Your task to perform on an android device: Search for Mexican restaurants on Maps Image 0: 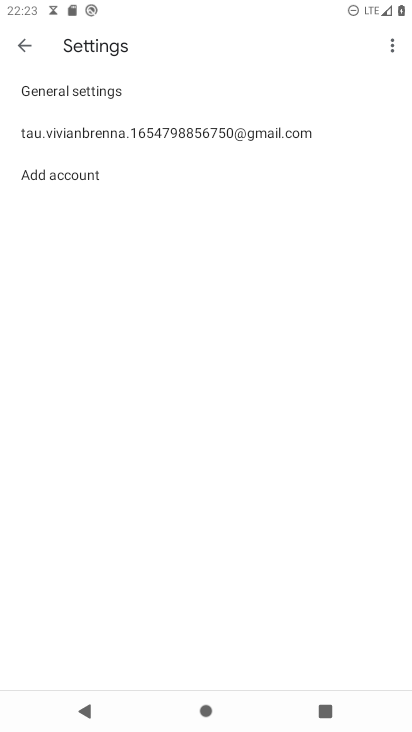
Step 0: press home button
Your task to perform on an android device: Search for Mexican restaurants on Maps Image 1: 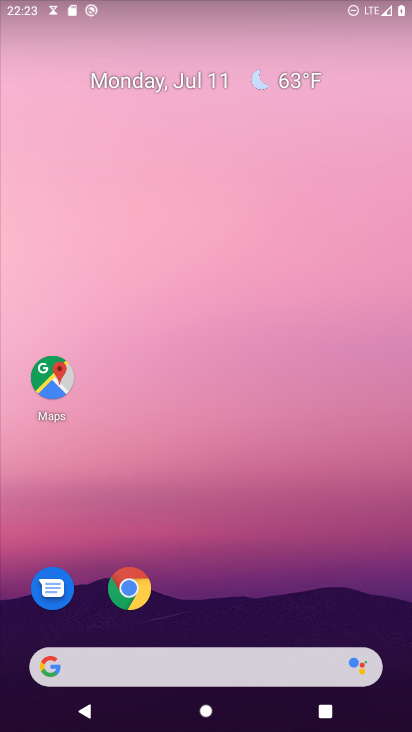
Step 1: click (69, 367)
Your task to perform on an android device: Search for Mexican restaurants on Maps Image 2: 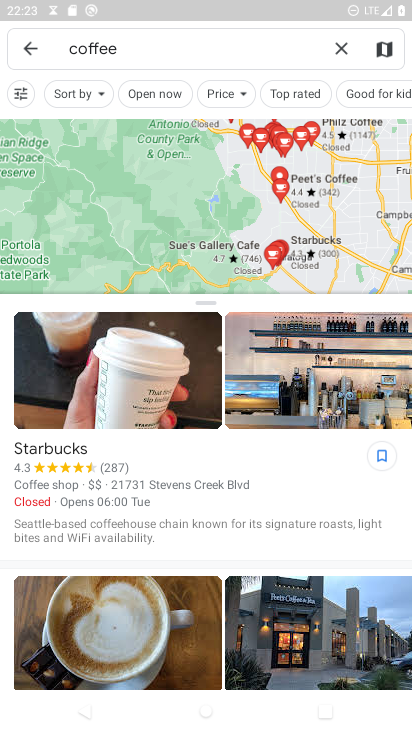
Step 2: click (338, 48)
Your task to perform on an android device: Search for Mexican restaurants on Maps Image 3: 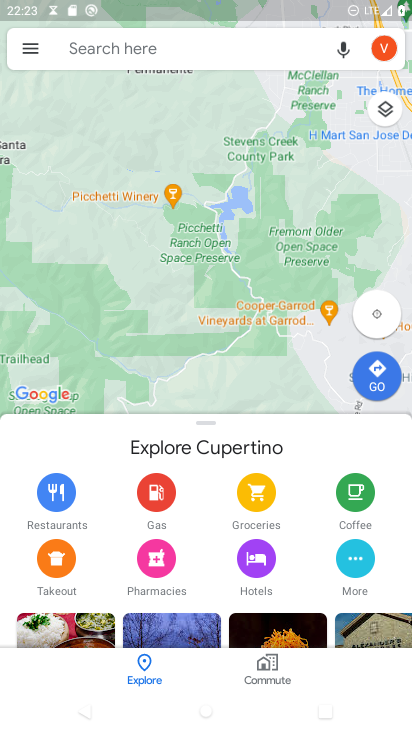
Step 3: type "Mexican restaurants"
Your task to perform on an android device: Search for Mexican restaurants on Maps Image 4: 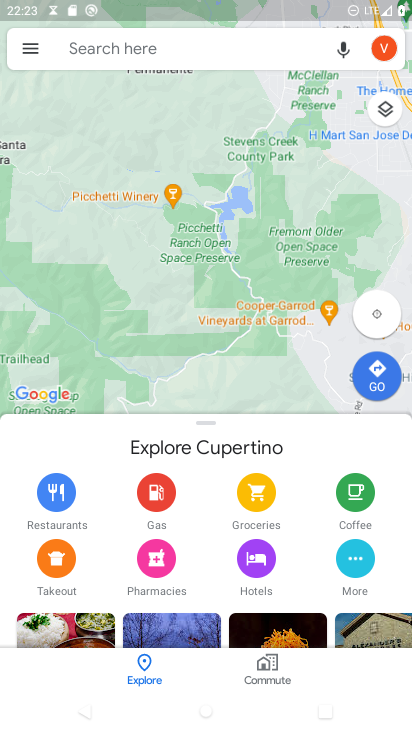
Step 4: click (100, 43)
Your task to perform on an android device: Search for Mexican restaurants on Maps Image 5: 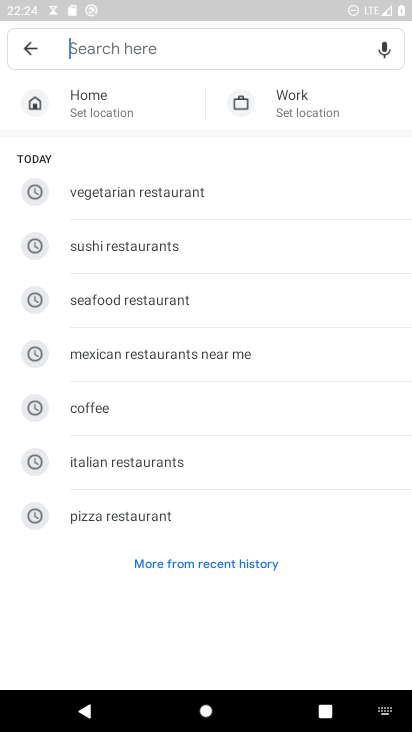
Step 5: type "Mexican restaurants"
Your task to perform on an android device: Search for Mexican restaurants on Maps Image 6: 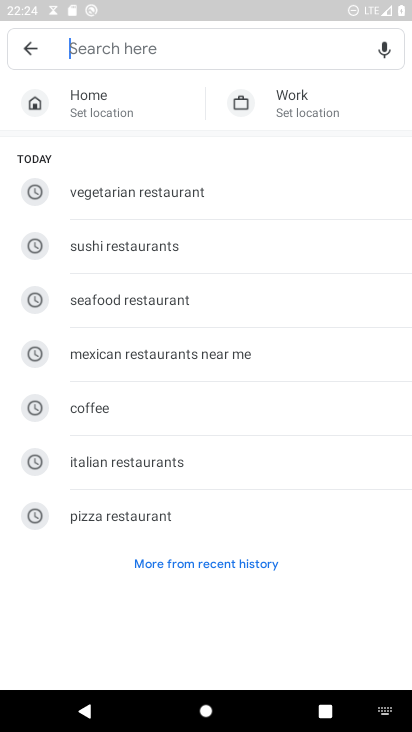
Step 6: click (94, 51)
Your task to perform on an android device: Search for Mexican restaurants on Maps Image 7: 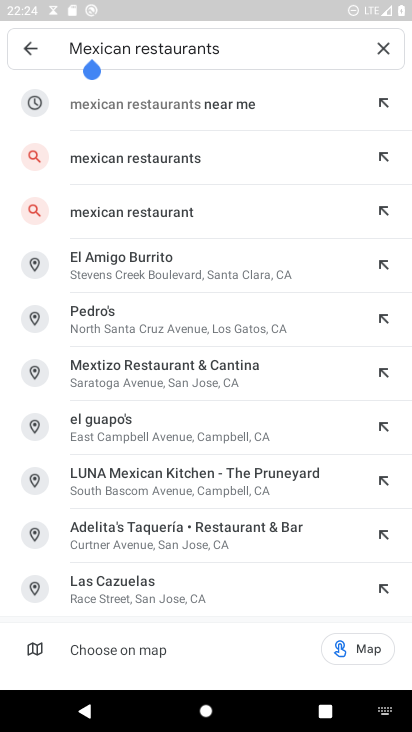
Step 7: press enter
Your task to perform on an android device: Search for Mexican restaurants on Maps Image 8: 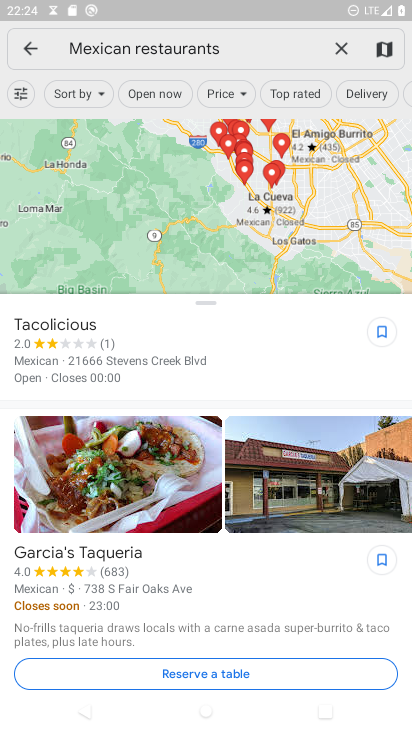
Step 8: task complete